Your task to perform on an android device: stop showing notifications on the lock screen Image 0: 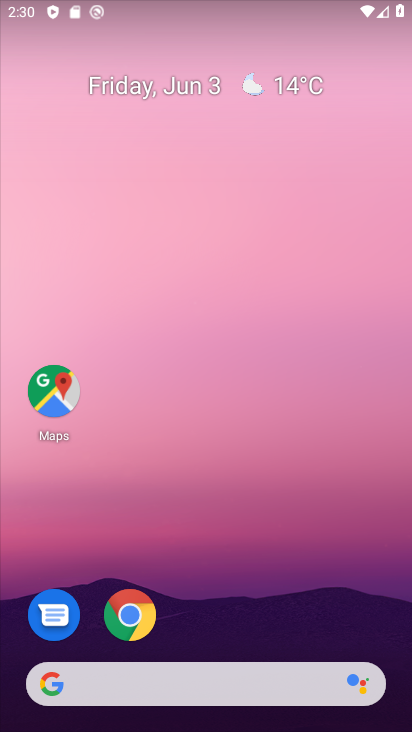
Step 0: press home button
Your task to perform on an android device: stop showing notifications on the lock screen Image 1: 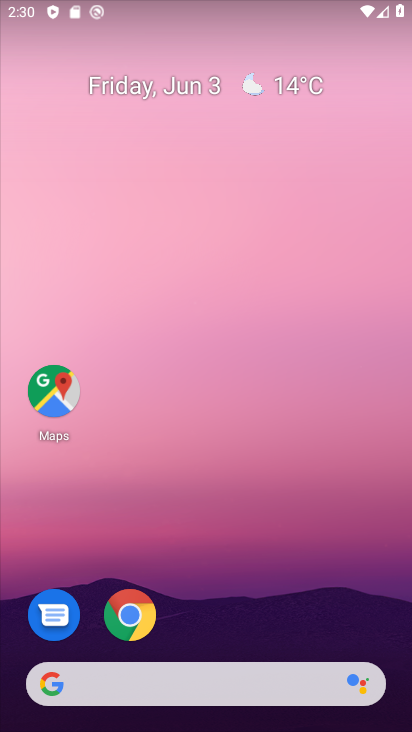
Step 1: drag from (228, 626) to (227, 327)
Your task to perform on an android device: stop showing notifications on the lock screen Image 2: 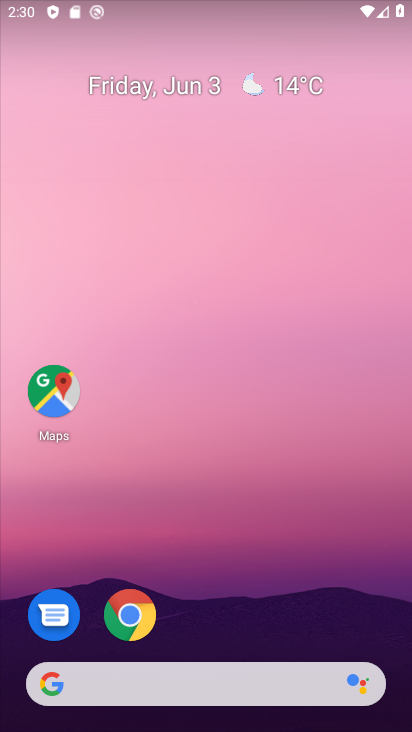
Step 2: drag from (251, 624) to (228, 268)
Your task to perform on an android device: stop showing notifications on the lock screen Image 3: 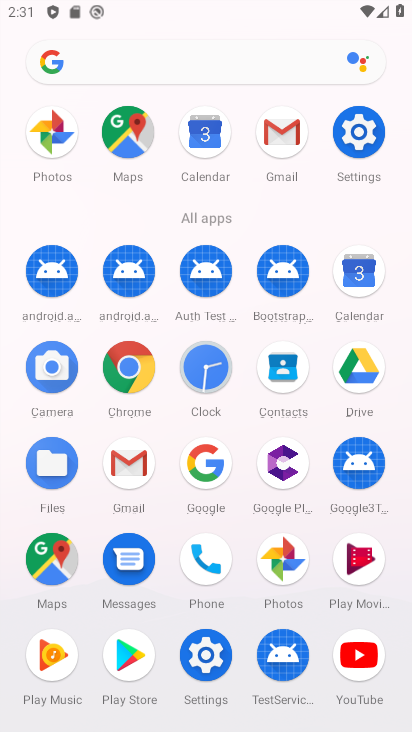
Step 3: click (378, 139)
Your task to perform on an android device: stop showing notifications on the lock screen Image 4: 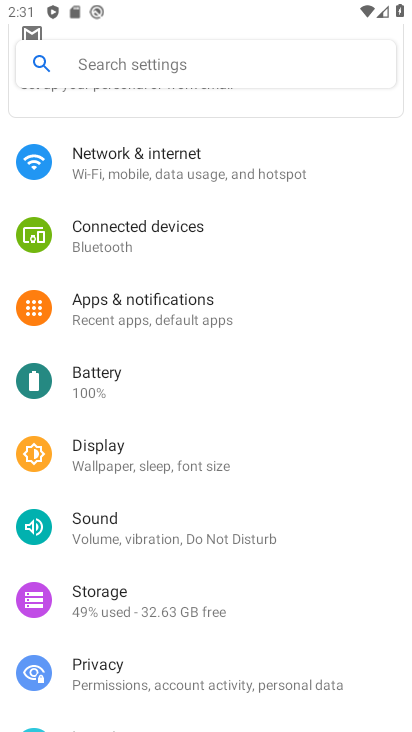
Step 4: click (167, 299)
Your task to perform on an android device: stop showing notifications on the lock screen Image 5: 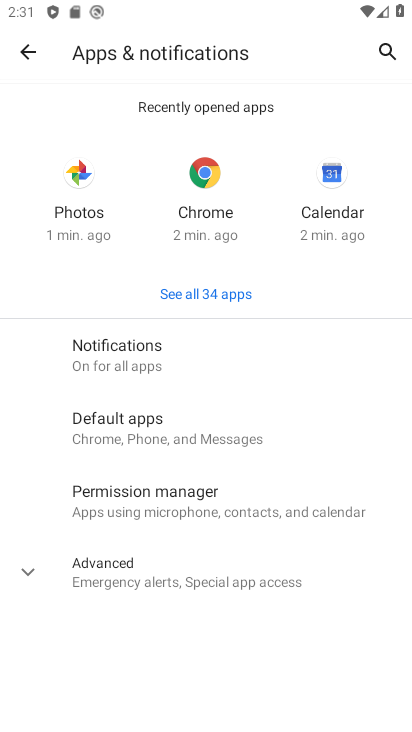
Step 5: click (111, 361)
Your task to perform on an android device: stop showing notifications on the lock screen Image 6: 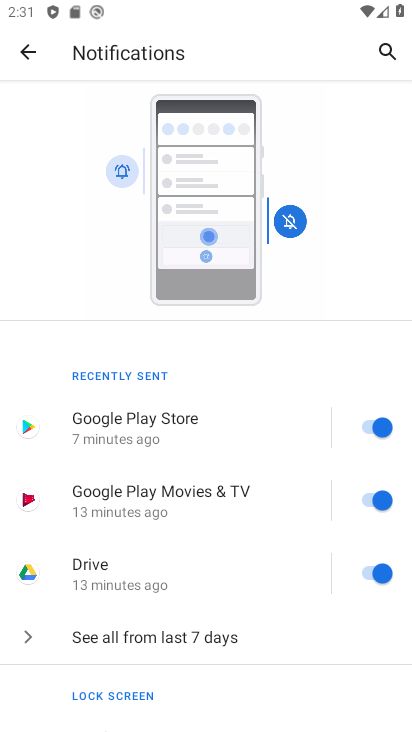
Step 6: click (282, 624)
Your task to perform on an android device: stop showing notifications on the lock screen Image 7: 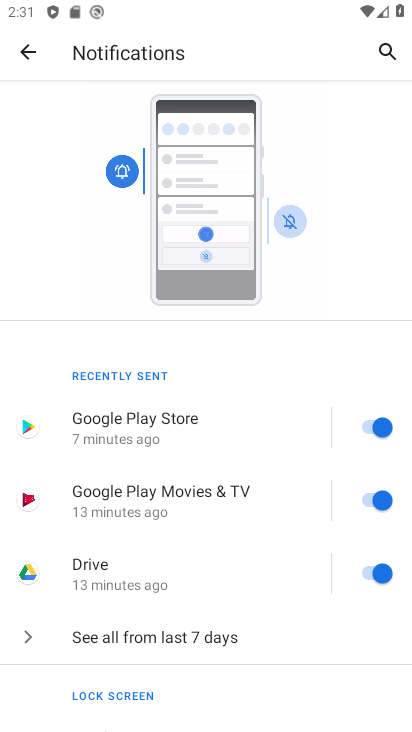
Step 7: drag from (312, 647) to (289, 45)
Your task to perform on an android device: stop showing notifications on the lock screen Image 8: 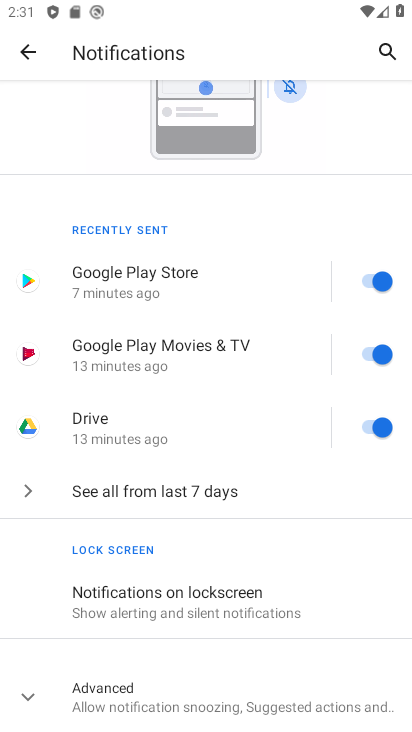
Step 8: click (139, 599)
Your task to perform on an android device: stop showing notifications on the lock screen Image 9: 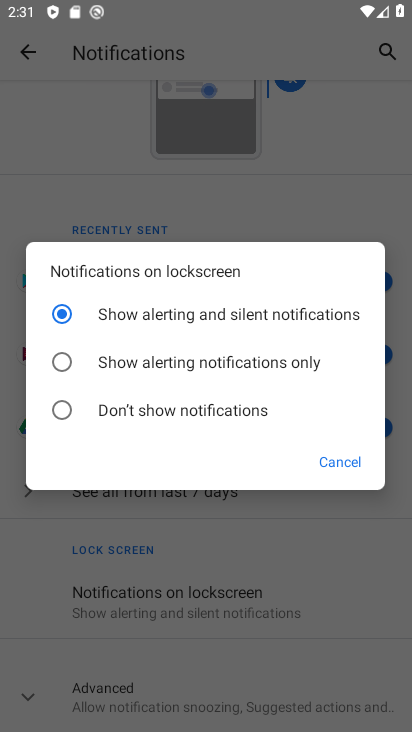
Step 9: click (66, 403)
Your task to perform on an android device: stop showing notifications on the lock screen Image 10: 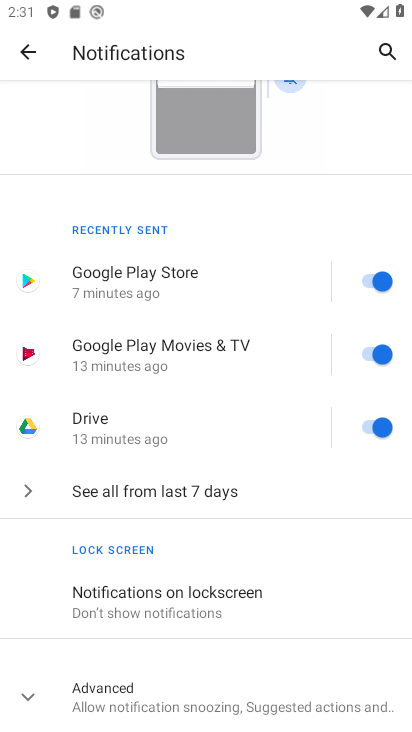
Step 10: task complete